Your task to perform on an android device: turn on priority inbox in the gmail app Image 0: 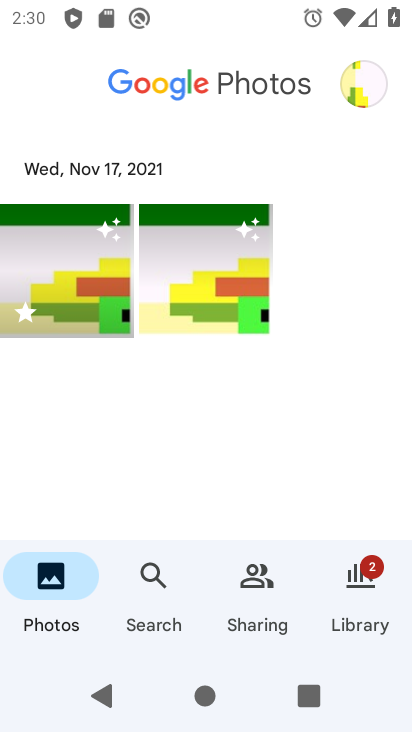
Step 0: press home button
Your task to perform on an android device: turn on priority inbox in the gmail app Image 1: 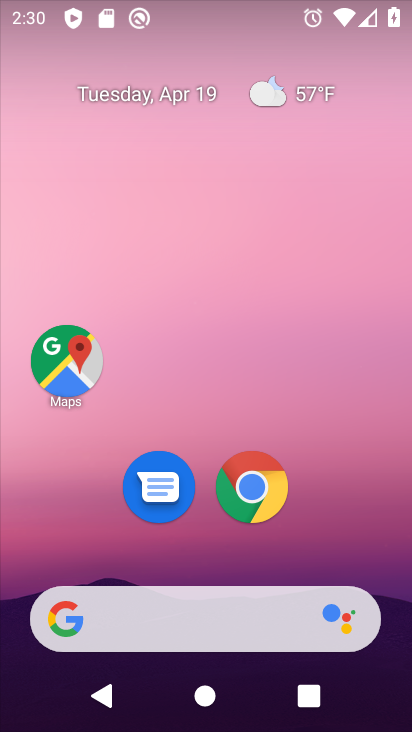
Step 1: drag from (353, 508) to (373, 72)
Your task to perform on an android device: turn on priority inbox in the gmail app Image 2: 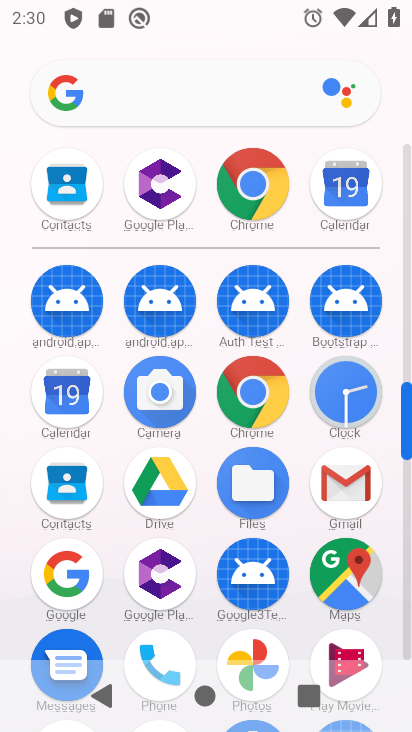
Step 2: click (342, 484)
Your task to perform on an android device: turn on priority inbox in the gmail app Image 3: 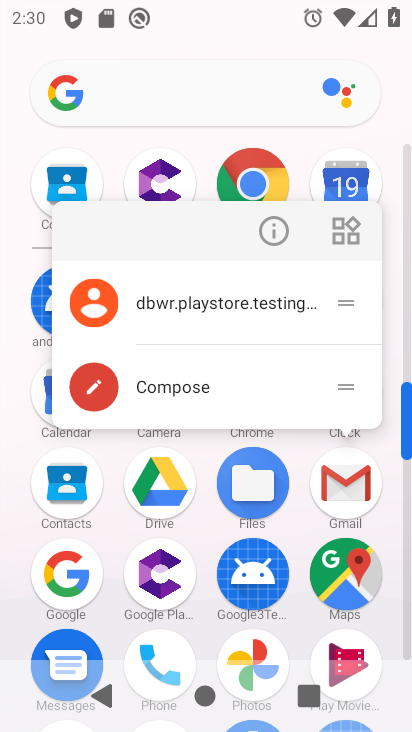
Step 3: click (345, 485)
Your task to perform on an android device: turn on priority inbox in the gmail app Image 4: 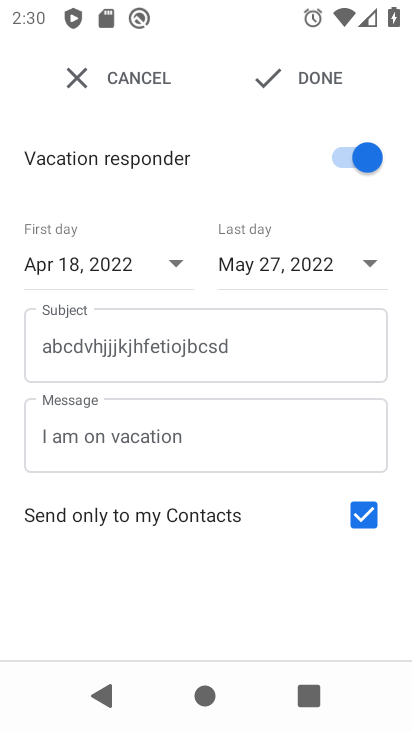
Step 4: click (88, 75)
Your task to perform on an android device: turn on priority inbox in the gmail app Image 5: 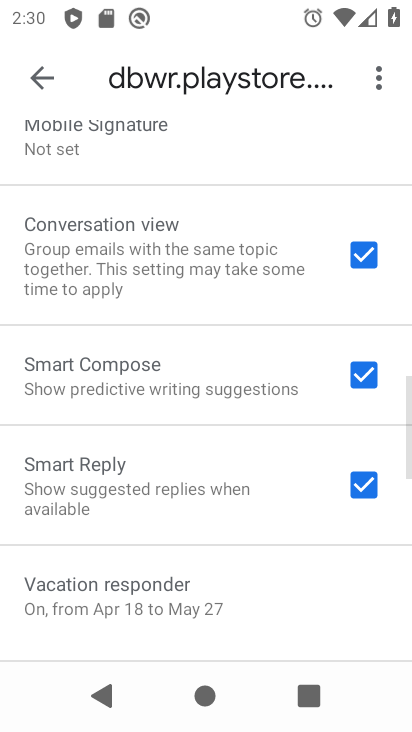
Step 5: drag from (158, 170) to (192, 583)
Your task to perform on an android device: turn on priority inbox in the gmail app Image 6: 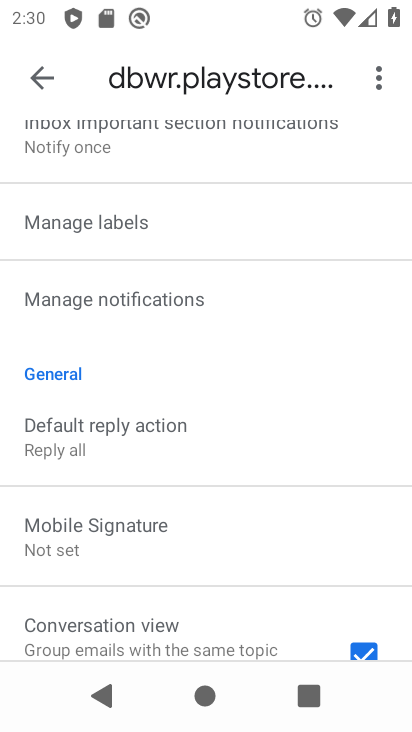
Step 6: drag from (223, 224) to (212, 605)
Your task to perform on an android device: turn on priority inbox in the gmail app Image 7: 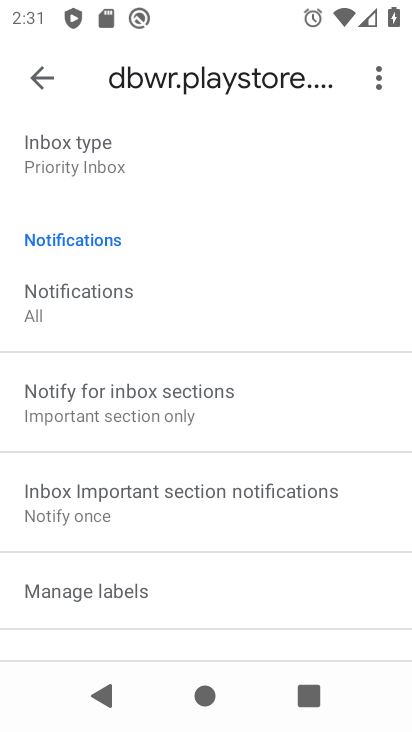
Step 7: click (115, 153)
Your task to perform on an android device: turn on priority inbox in the gmail app Image 8: 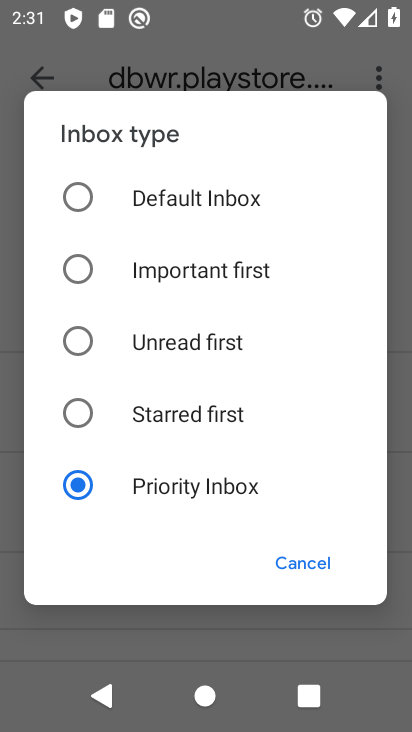
Step 8: task complete